Your task to perform on an android device: delete location history Image 0: 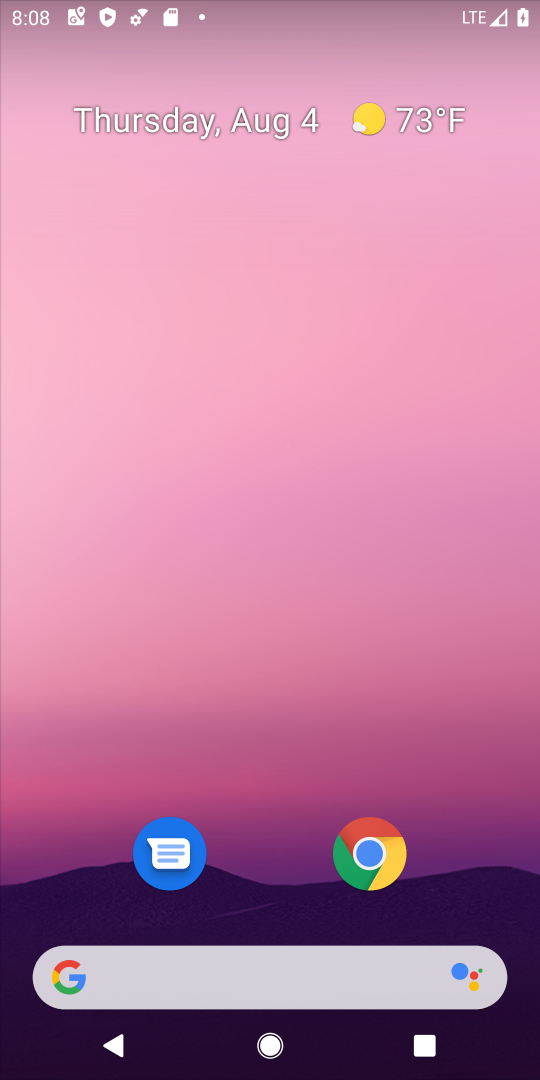
Step 0: drag from (265, 846) to (291, 444)
Your task to perform on an android device: delete location history Image 1: 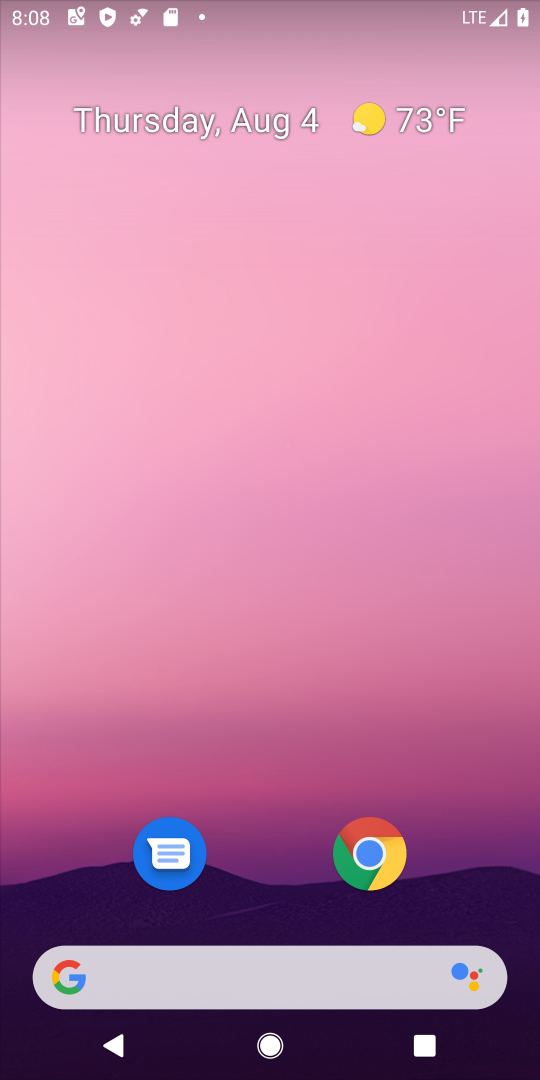
Step 1: drag from (220, 945) to (270, 413)
Your task to perform on an android device: delete location history Image 2: 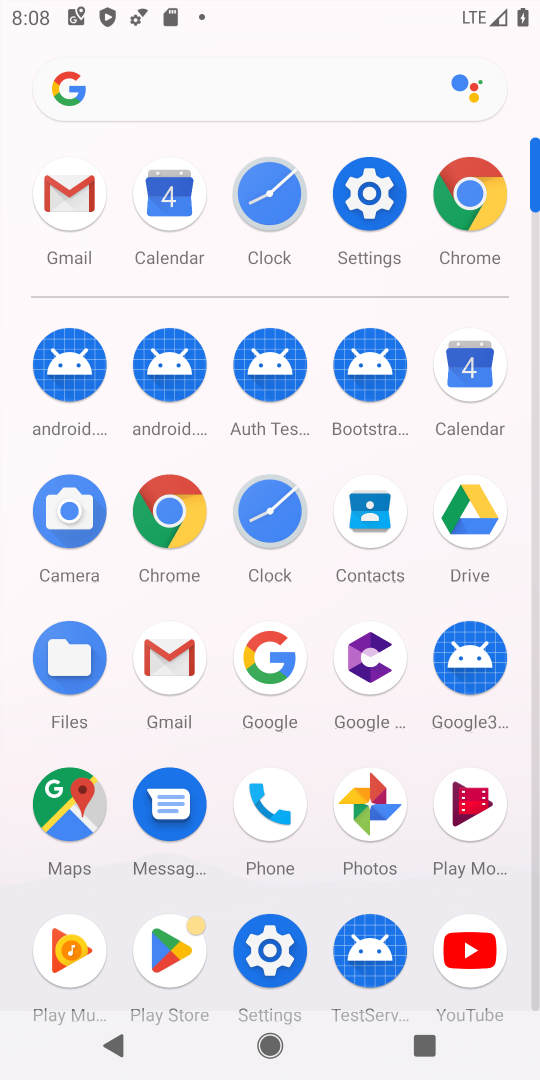
Step 2: click (374, 192)
Your task to perform on an android device: delete location history Image 3: 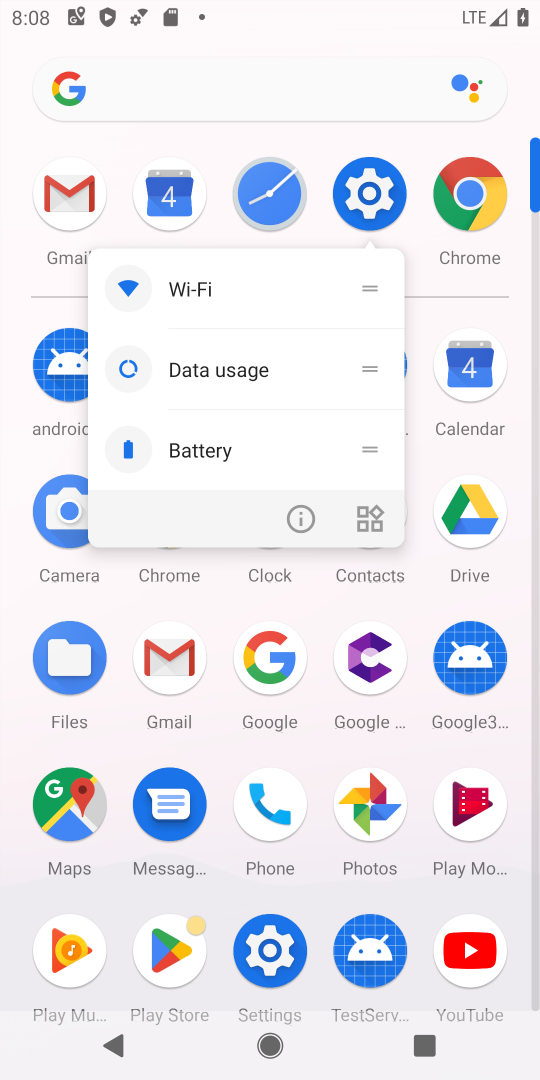
Step 3: click (374, 192)
Your task to perform on an android device: delete location history Image 4: 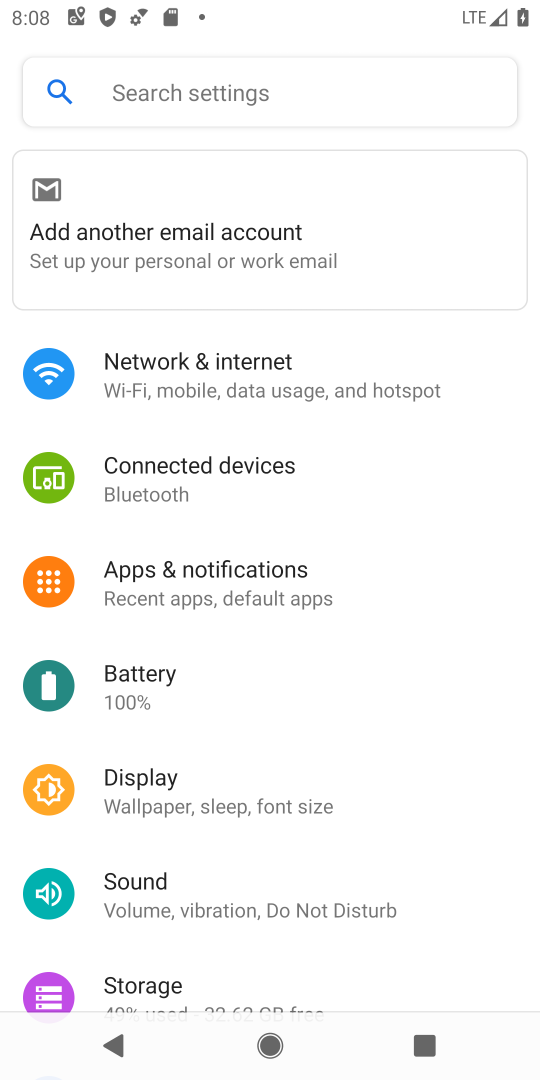
Step 4: drag from (206, 960) to (213, 528)
Your task to perform on an android device: delete location history Image 5: 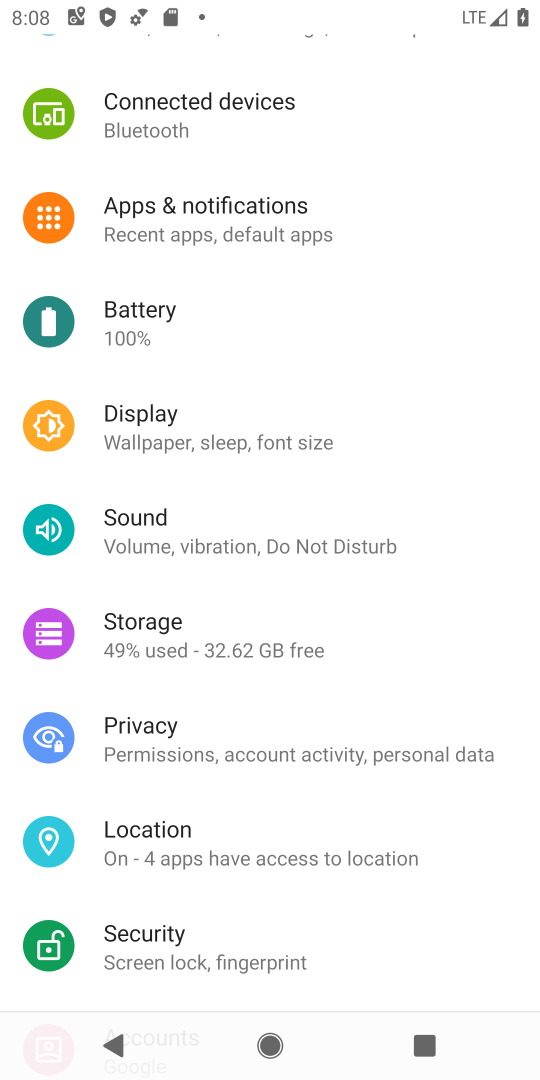
Step 5: click (127, 850)
Your task to perform on an android device: delete location history Image 6: 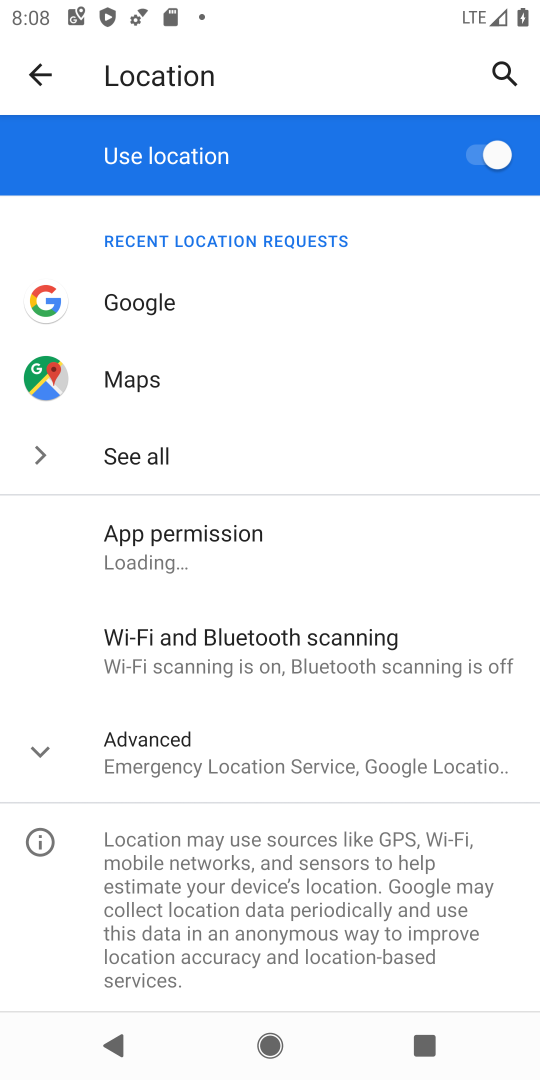
Step 6: click (170, 766)
Your task to perform on an android device: delete location history Image 7: 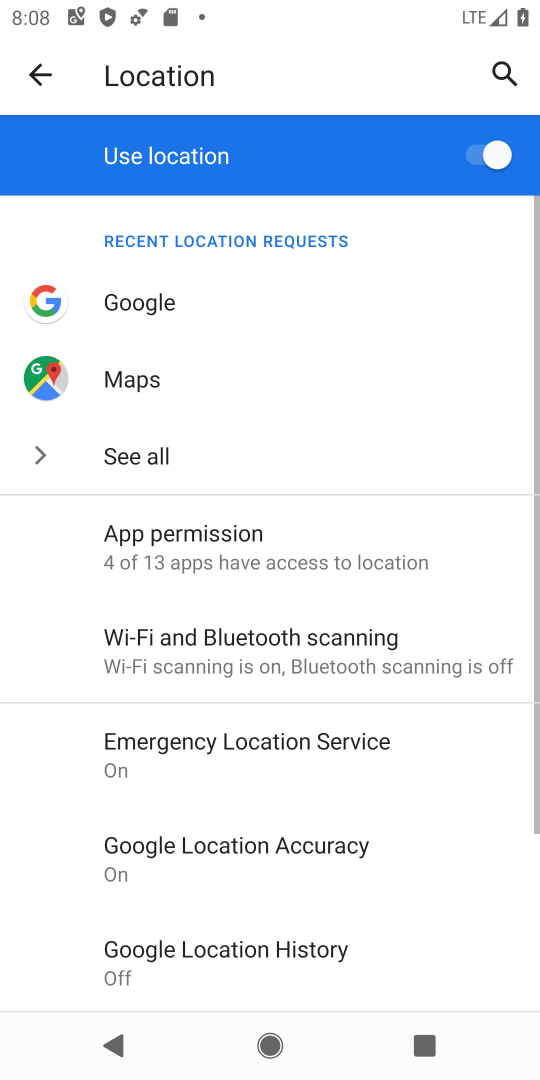
Step 7: click (196, 969)
Your task to perform on an android device: delete location history Image 8: 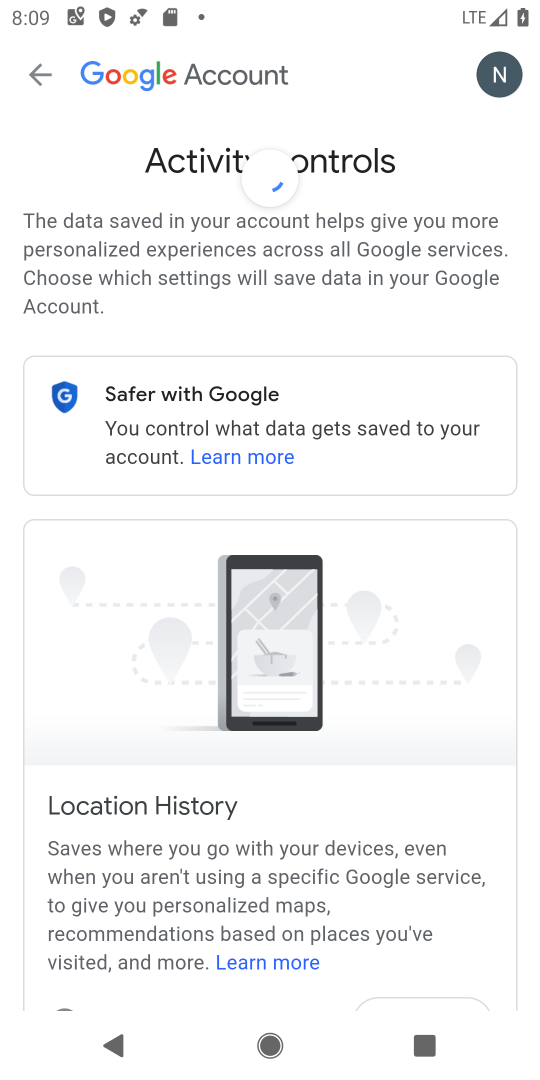
Step 8: drag from (218, 963) to (252, 439)
Your task to perform on an android device: delete location history Image 9: 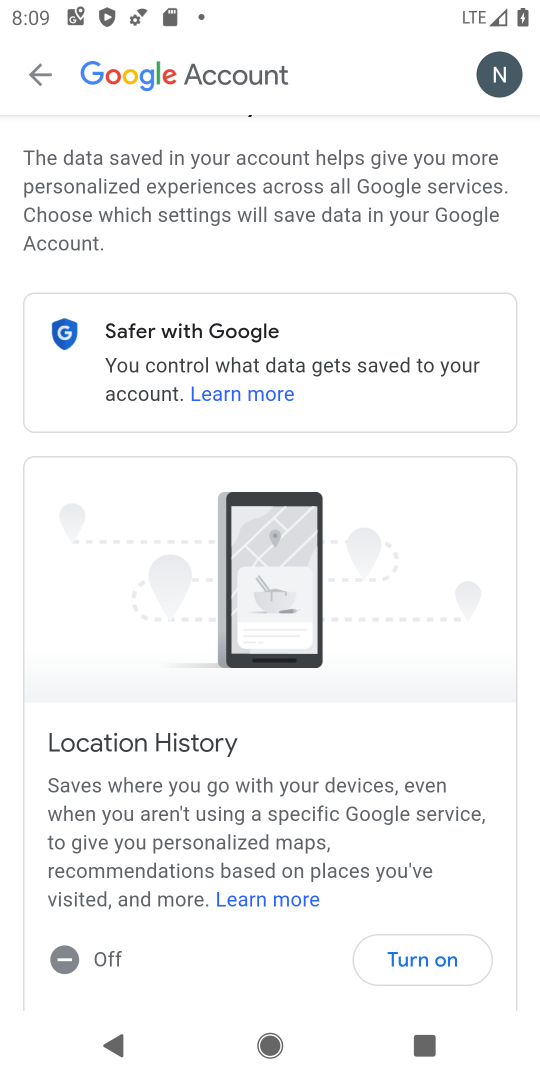
Step 9: drag from (388, 815) to (411, 295)
Your task to perform on an android device: delete location history Image 10: 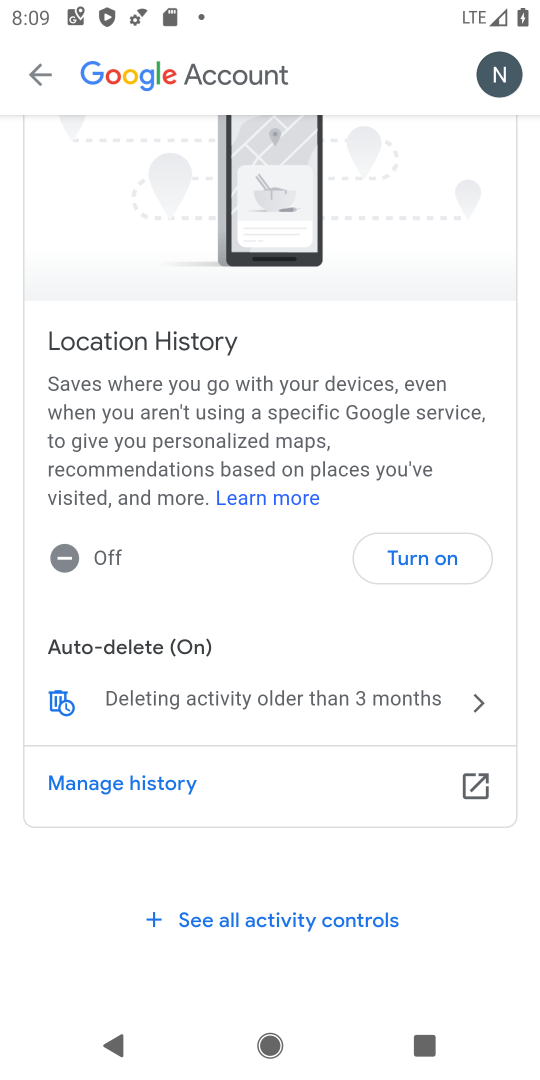
Step 10: click (245, 700)
Your task to perform on an android device: delete location history Image 11: 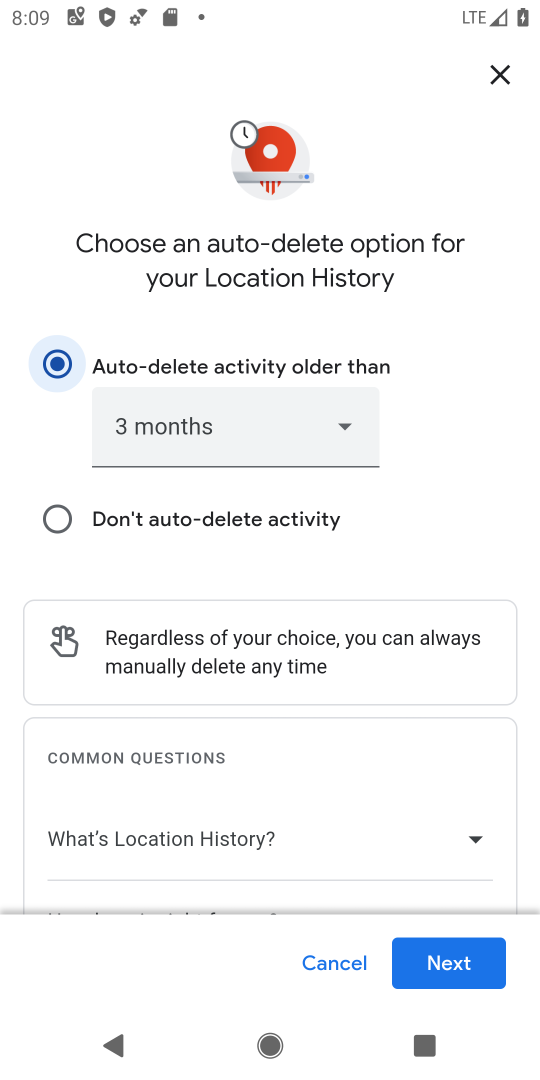
Step 11: click (457, 970)
Your task to perform on an android device: delete location history Image 12: 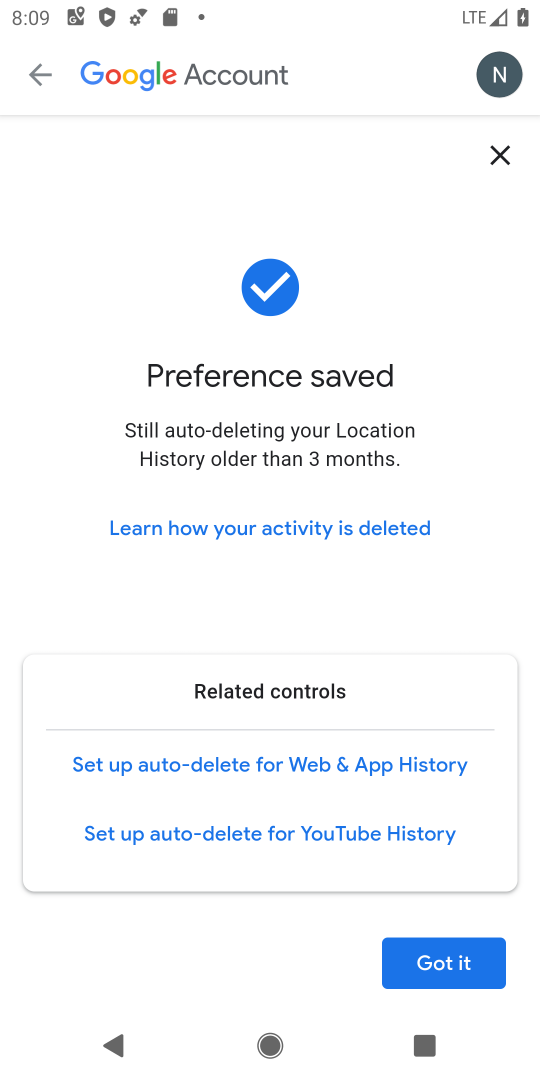
Step 12: click (422, 954)
Your task to perform on an android device: delete location history Image 13: 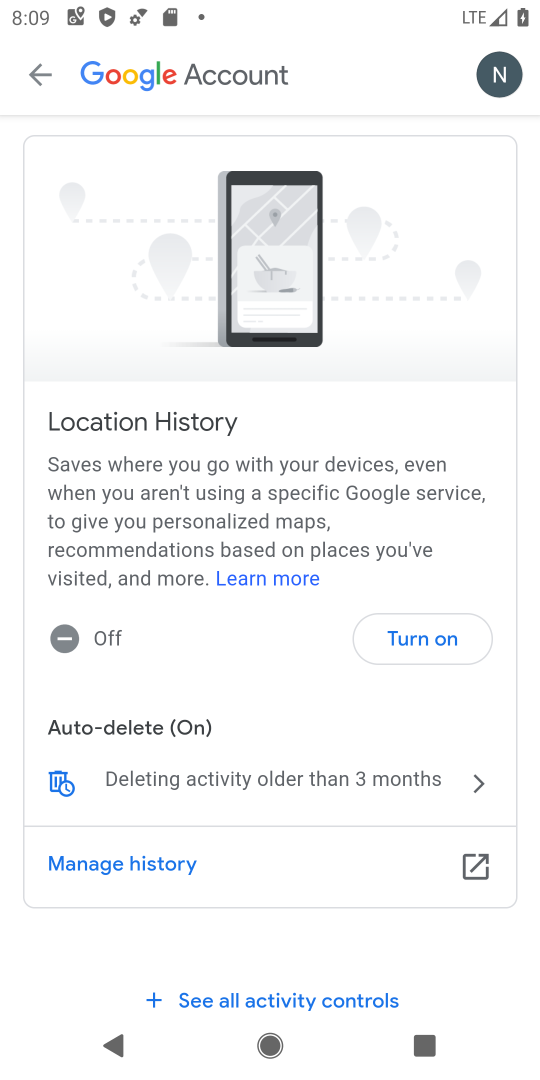
Step 13: task complete